Your task to perform on an android device: Show me the alarms in the clock app Image 0: 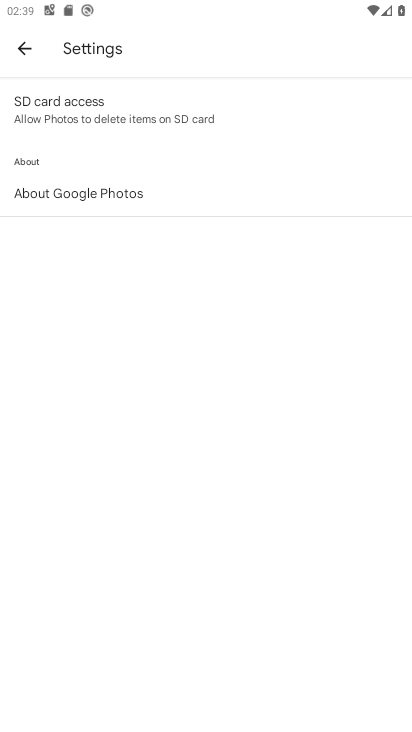
Step 0: press home button
Your task to perform on an android device: Show me the alarms in the clock app Image 1: 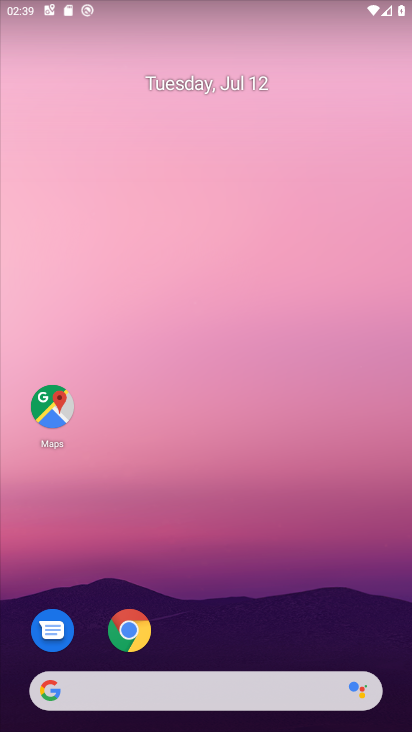
Step 1: drag from (381, 635) to (329, 60)
Your task to perform on an android device: Show me the alarms in the clock app Image 2: 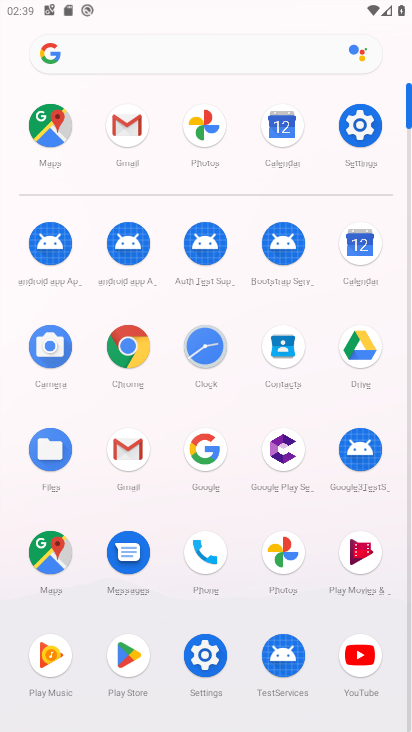
Step 2: click (203, 342)
Your task to perform on an android device: Show me the alarms in the clock app Image 3: 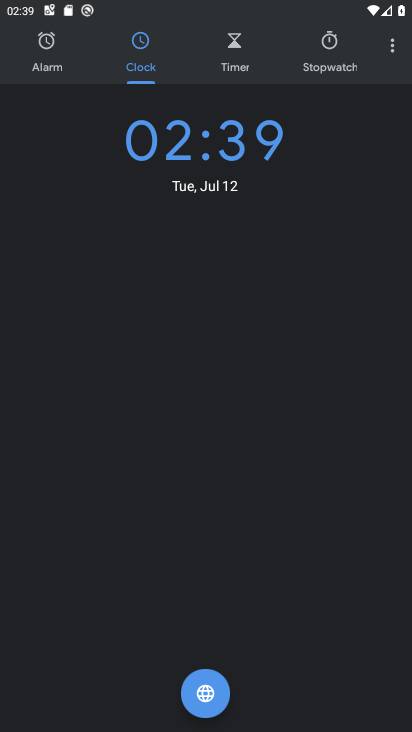
Step 3: click (44, 43)
Your task to perform on an android device: Show me the alarms in the clock app Image 4: 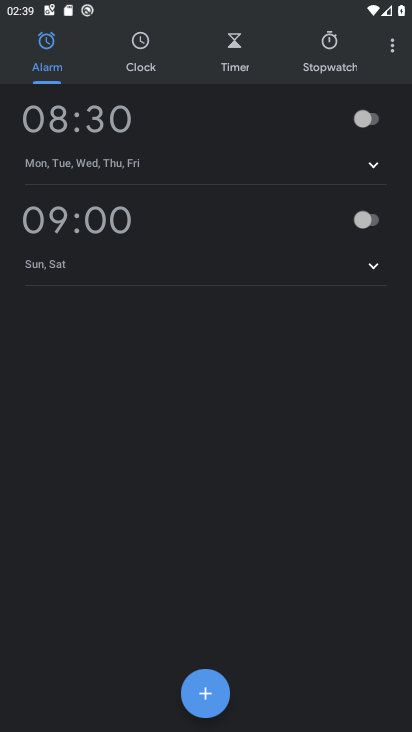
Step 4: task complete